Your task to perform on an android device: Go to Google Image 0: 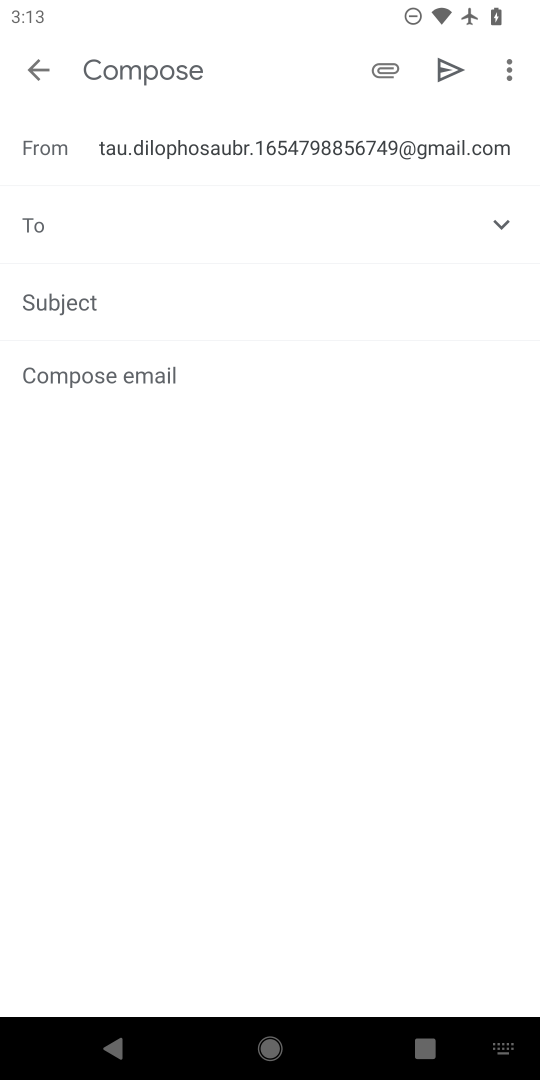
Step 0: press home button
Your task to perform on an android device: Go to Google Image 1: 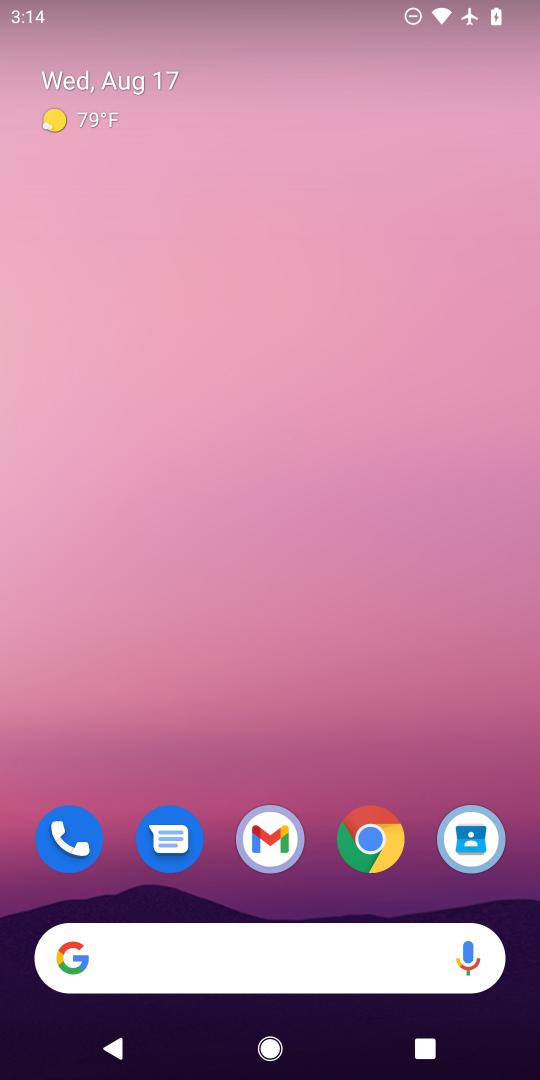
Step 1: drag from (336, 828) to (337, 159)
Your task to perform on an android device: Go to Google Image 2: 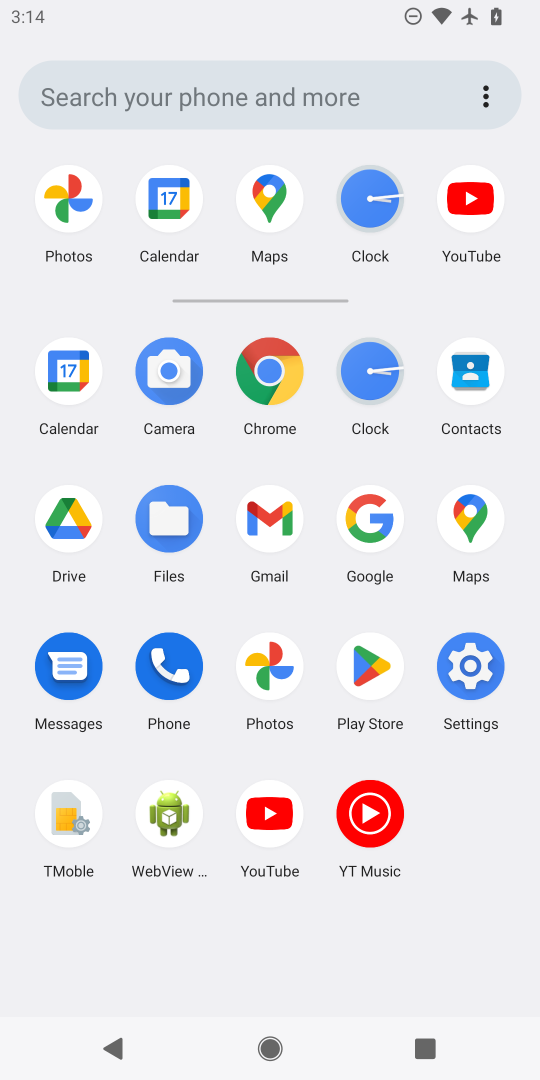
Step 2: click (373, 520)
Your task to perform on an android device: Go to Google Image 3: 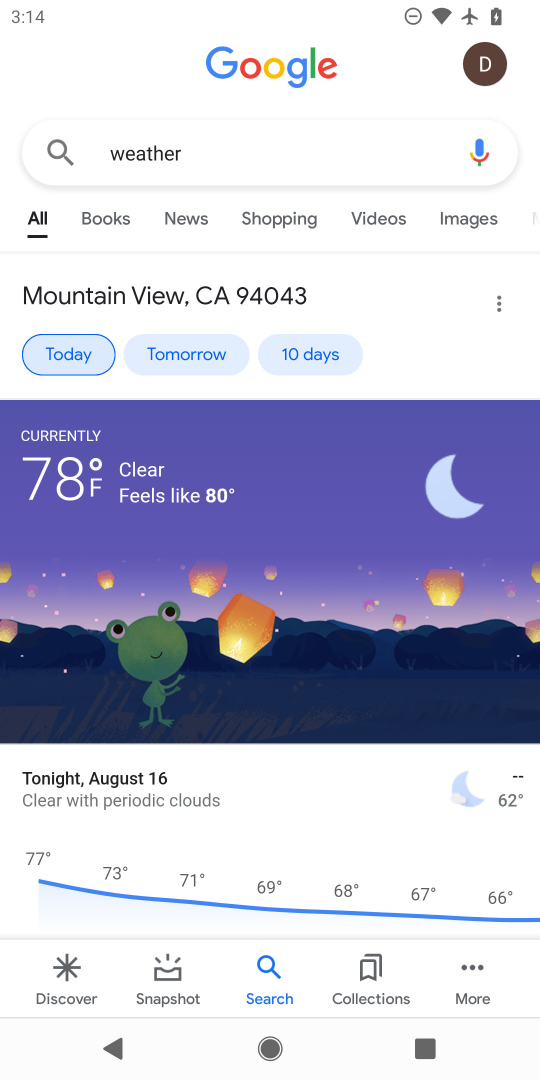
Step 3: task complete